Your task to perform on an android device: Do I have any events today? Image 0: 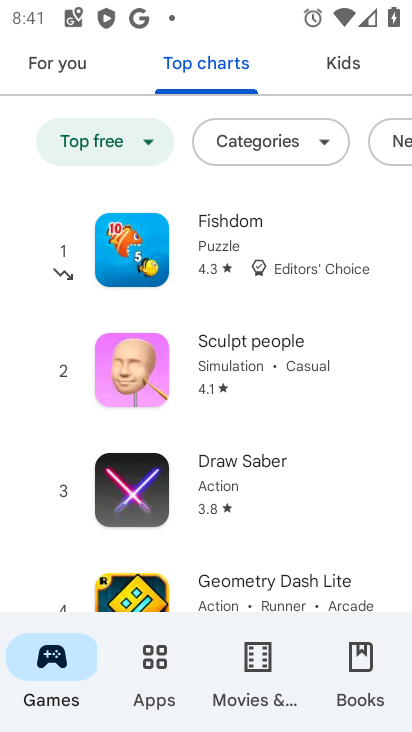
Step 0: press home button
Your task to perform on an android device: Do I have any events today? Image 1: 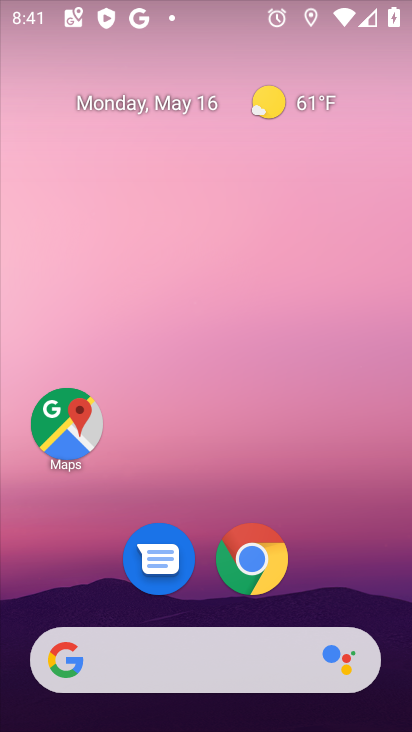
Step 1: drag from (373, 585) to (384, 191)
Your task to perform on an android device: Do I have any events today? Image 2: 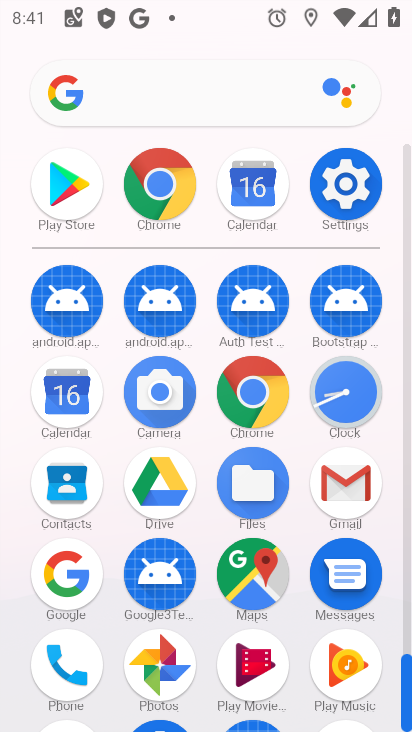
Step 2: click (47, 399)
Your task to perform on an android device: Do I have any events today? Image 3: 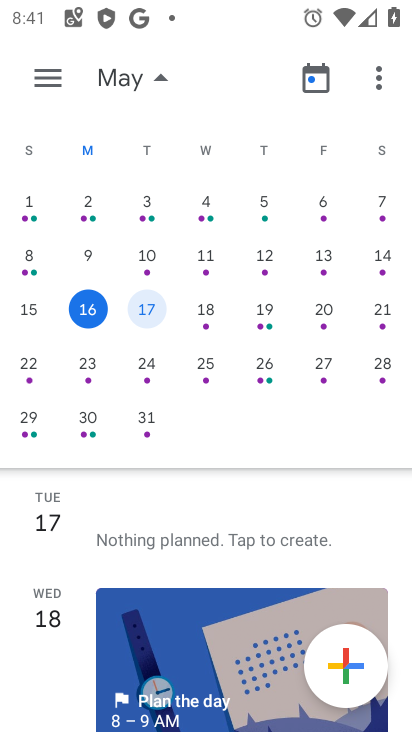
Step 3: click (87, 317)
Your task to perform on an android device: Do I have any events today? Image 4: 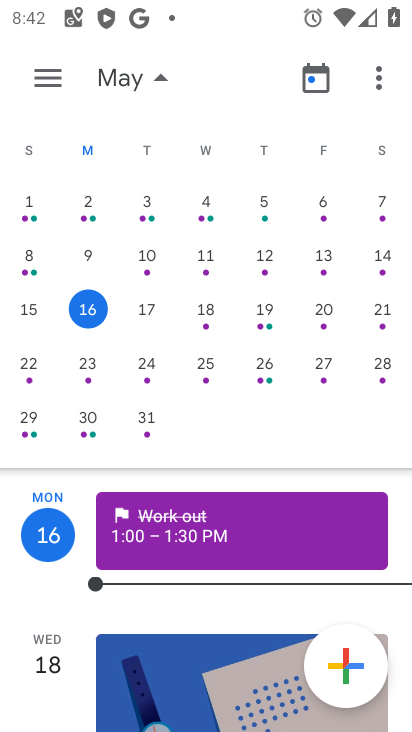
Step 4: task complete